Your task to perform on an android device: turn off notifications settings in the gmail app Image 0: 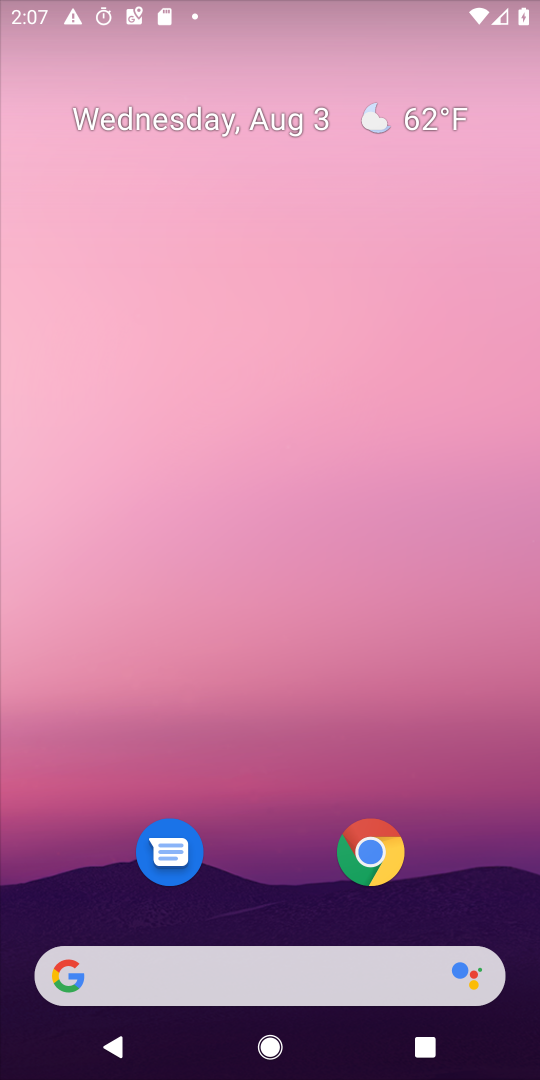
Step 0: drag from (489, 860) to (323, 64)
Your task to perform on an android device: turn off notifications settings in the gmail app Image 1: 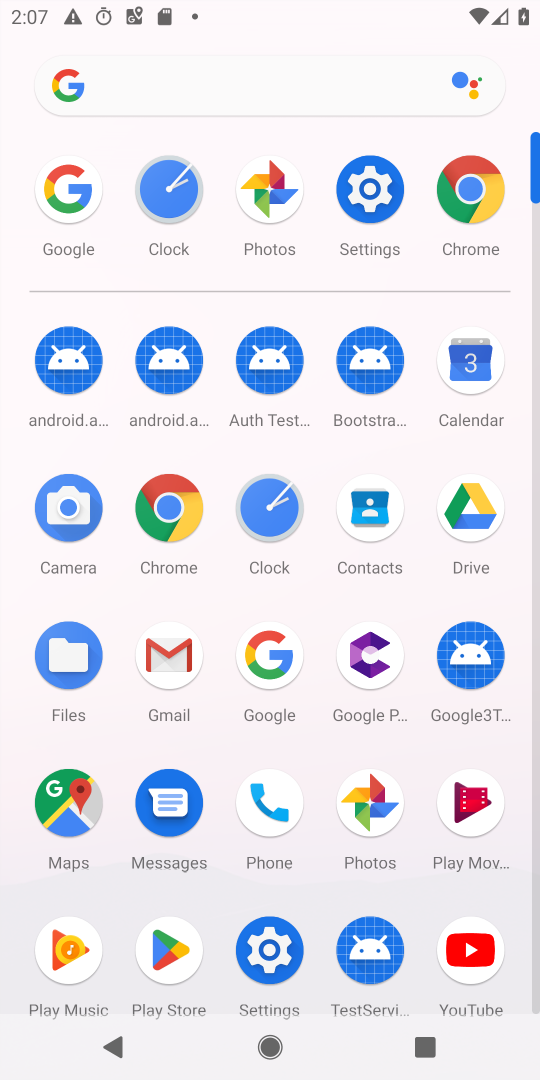
Step 1: click (164, 654)
Your task to perform on an android device: turn off notifications settings in the gmail app Image 2: 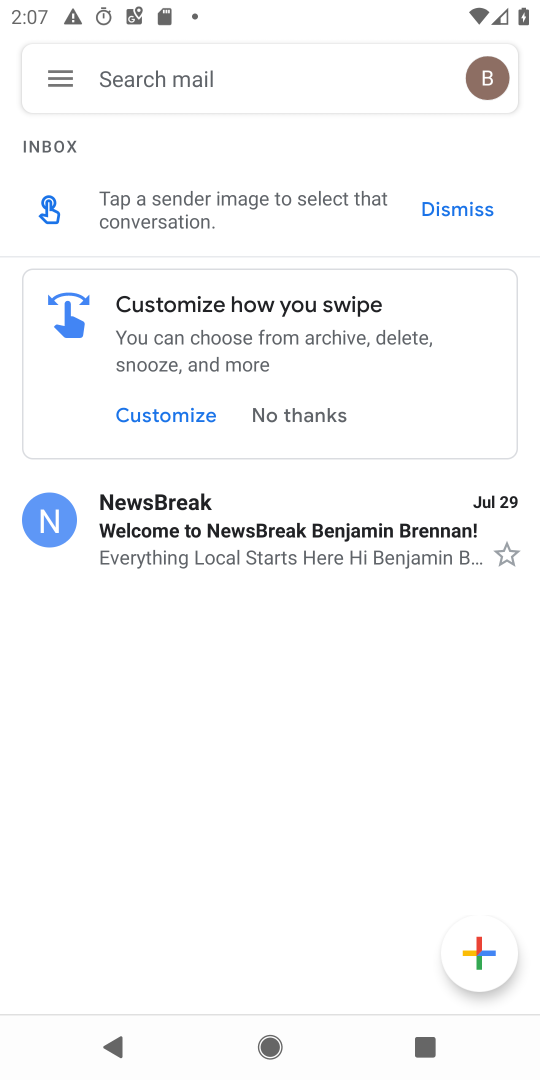
Step 2: click (63, 54)
Your task to perform on an android device: turn off notifications settings in the gmail app Image 3: 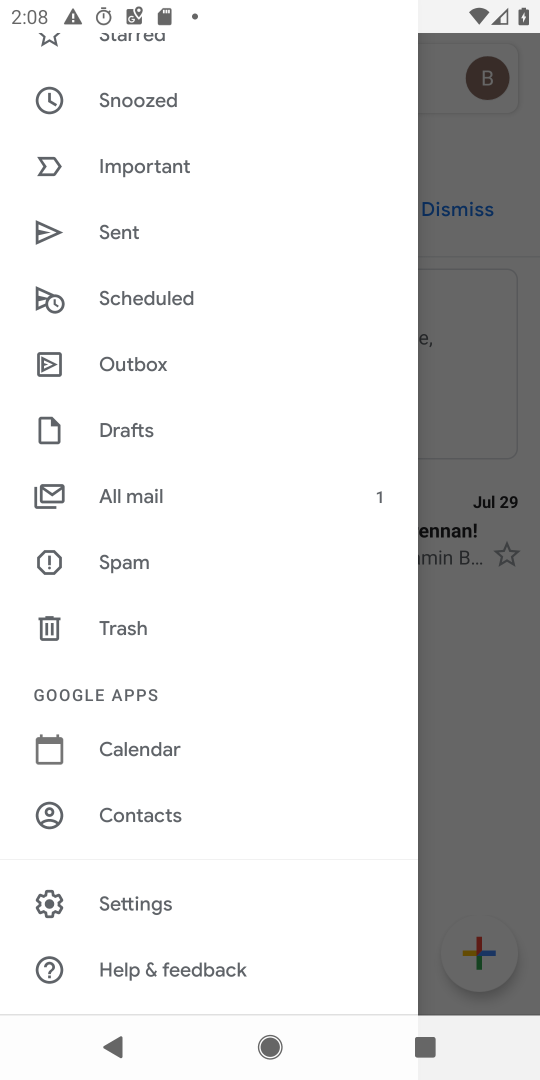
Step 3: click (144, 915)
Your task to perform on an android device: turn off notifications settings in the gmail app Image 4: 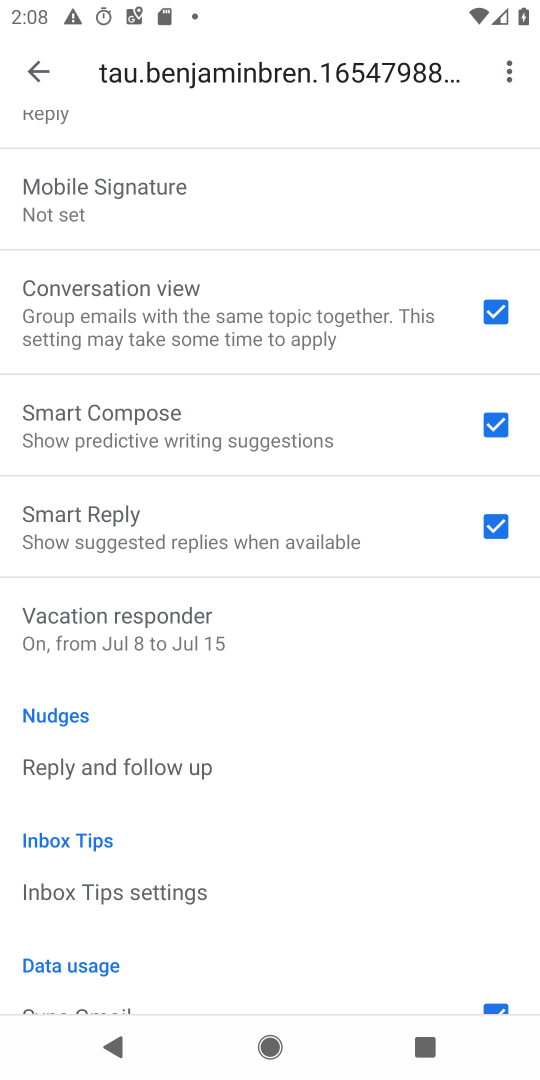
Step 4: drag from (163, 337) to (278, 1052)
Your task to perform on an android device: turn off notifications settings in the gmail app Image 5: 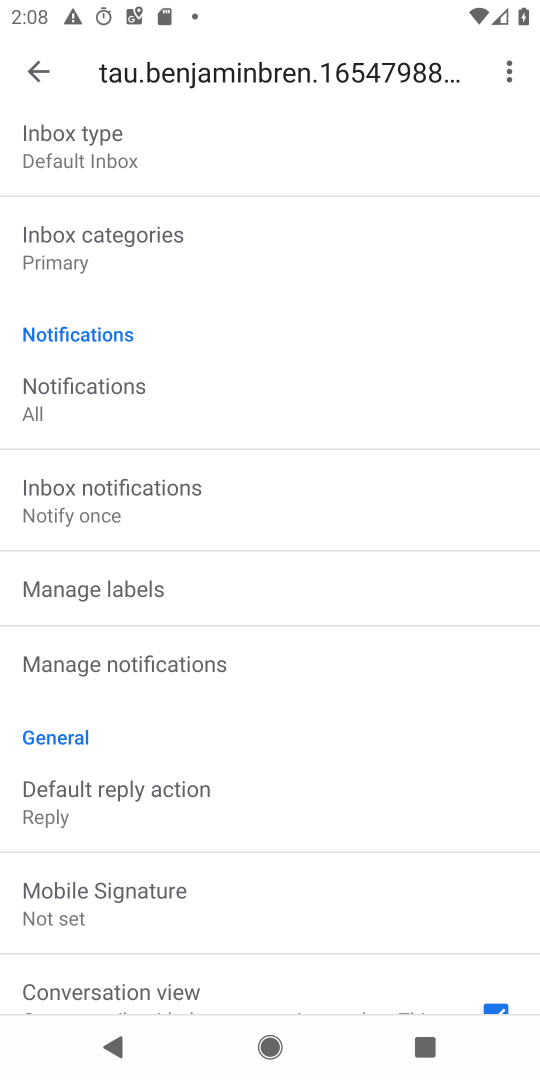
Step 5: click (104, 415)
Your task to perform on an android device: turn off notifications settings in the gmail app Image 6: 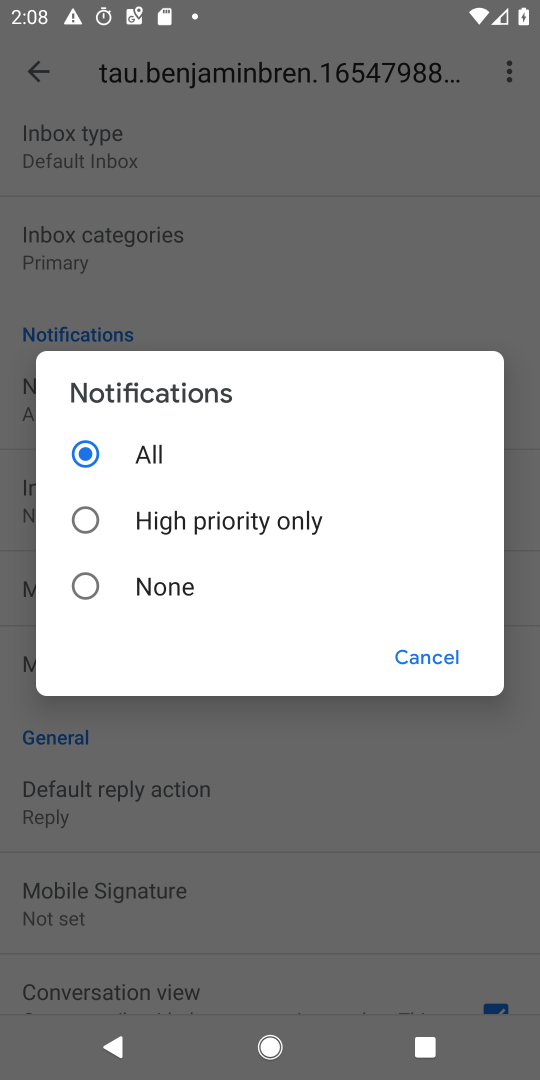
Step 6: click (94, 581)
Your task to perform on an android device: turn off notifications settings in the gmail app Image 7: 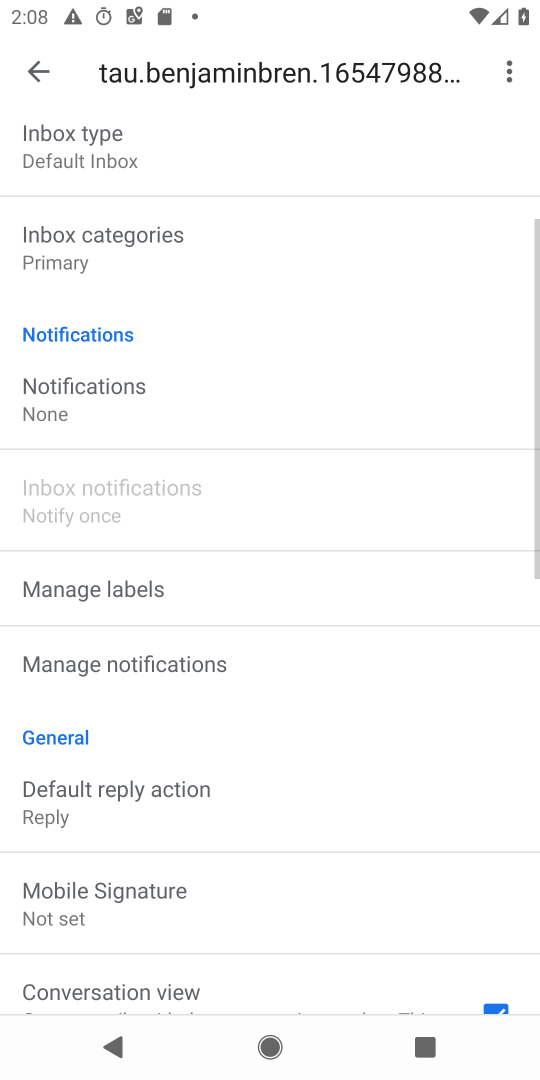
Step 7: task complete